Your task to perform on an android device: Open Youtube and go to "Your channel" Image 0: 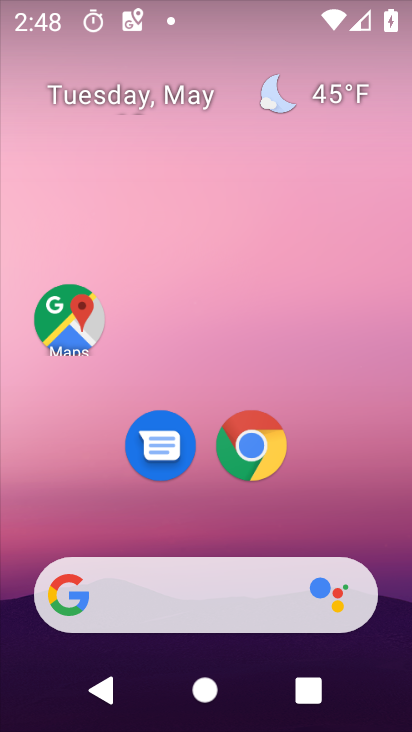
Step 0: drag from (194, 458) to (377, 0)
Your task to perform on an android device: Open Youtube and go to "Your channel" Image 1: 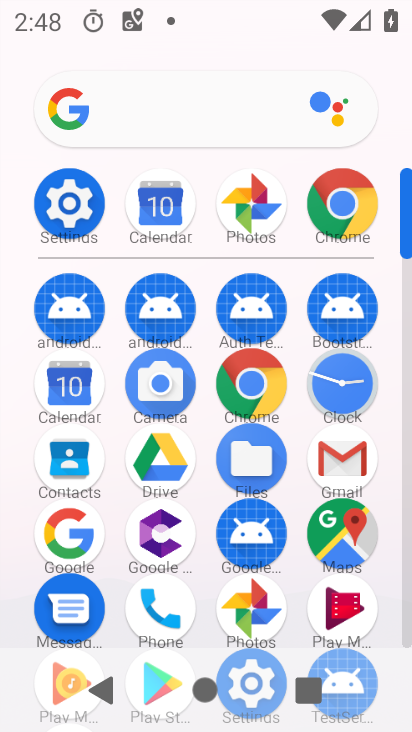
Step 1: drag from (223, 629) to (382, 72)
Your task to perform on an android device: Open Youtube and go to "Your channel" Image 2: 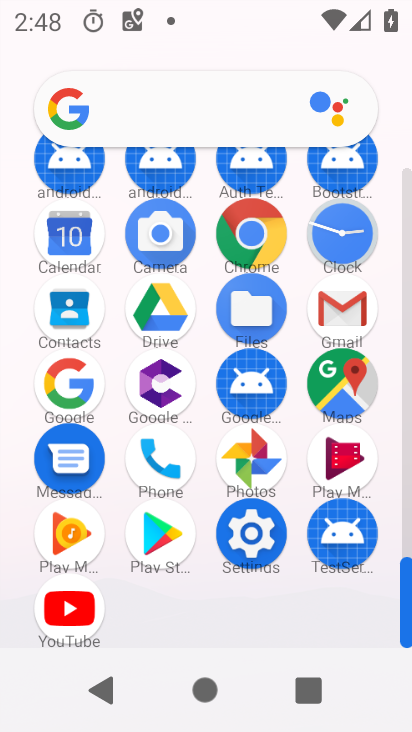
Step 2: click (59, 605)
Your task to perform on an android device: Open Youtube and go to "Your channel" Image 3: 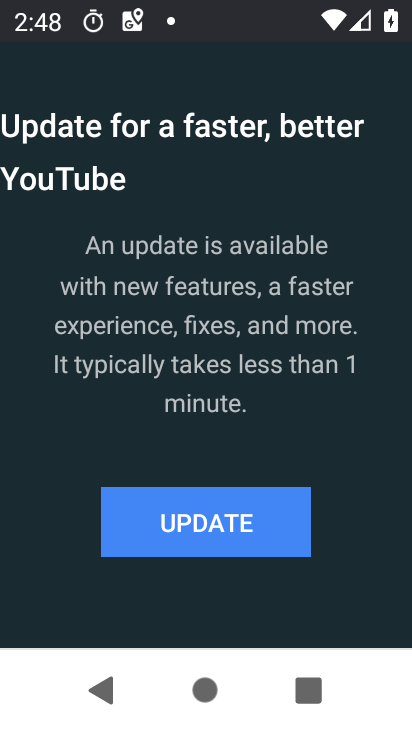
Step 3: click (199, 523)
Your task to perform on an android device: Open Youtube and go to "Your channel" Image 4: 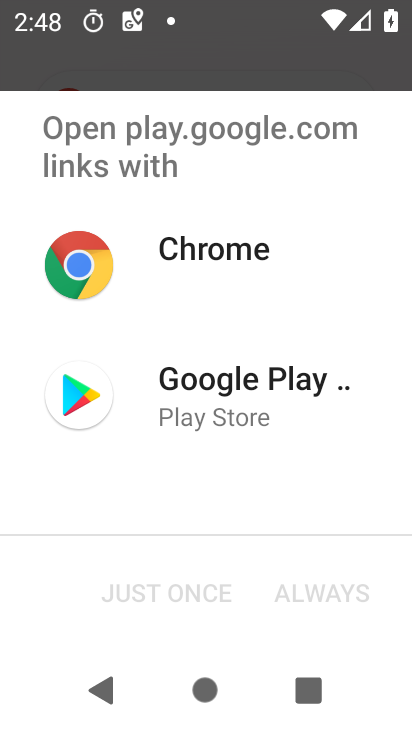
Step 4: click (198, 393)
Your task to perform on an android device: Open Youtube and go to "Your channel" Image 5: 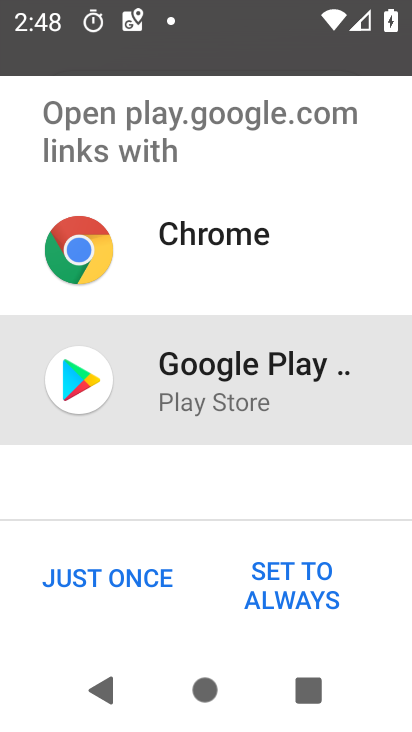
Step 5: click (139, 576)
Your task to perform on an android device: Open Youtube and go to "Your channel" Image 6: 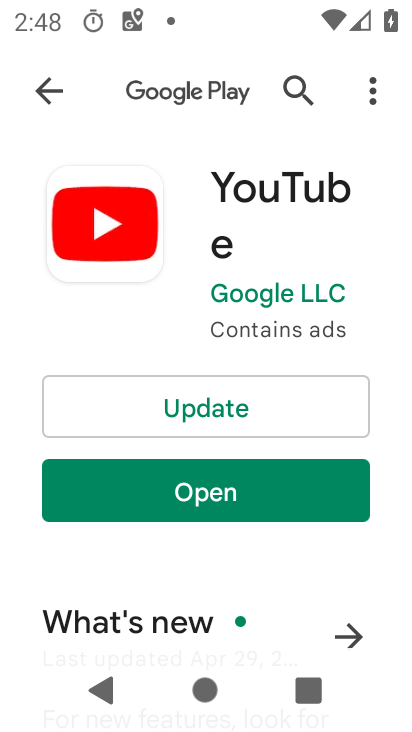
Step 6: click (208, 412)
Your task to perform on an android device: Open Youtube and go to "Your channel" Image 7: 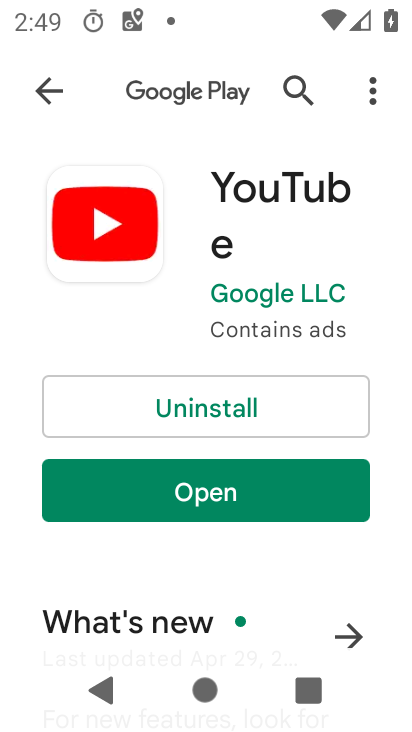
Step 7: click (188, 488)
Your task to perform on an android device: Open Youtube and go to "Your channel" Image 8: 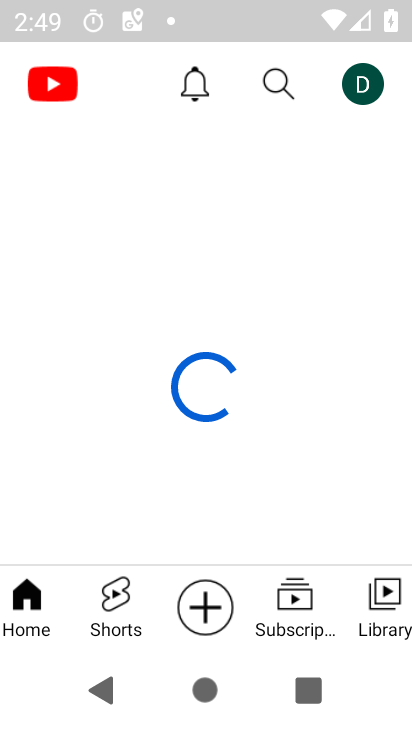
Step 8: click (357, 609)
Your task to perform on an android device: Open Youtube and go to "Your channel" Image 9: 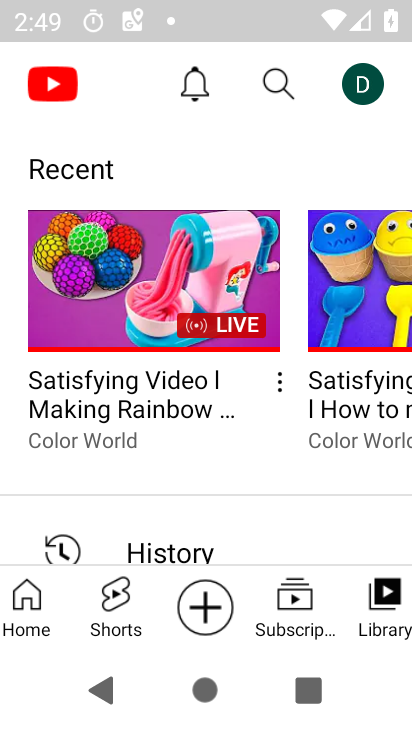
Step 9: click (360, 80)
Your task to perform on an android device: Open Youtube and go to "Your channel" Image 10: 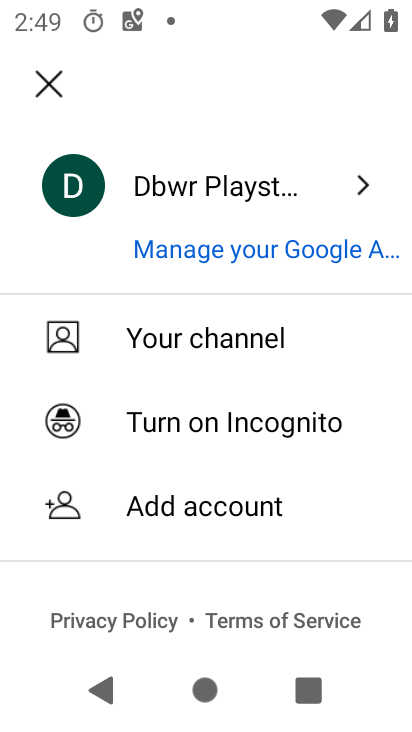
Step 10: click (212, 349)
Your task to perform on an android device: Open Youtube and go to "Your channel" Image 11: 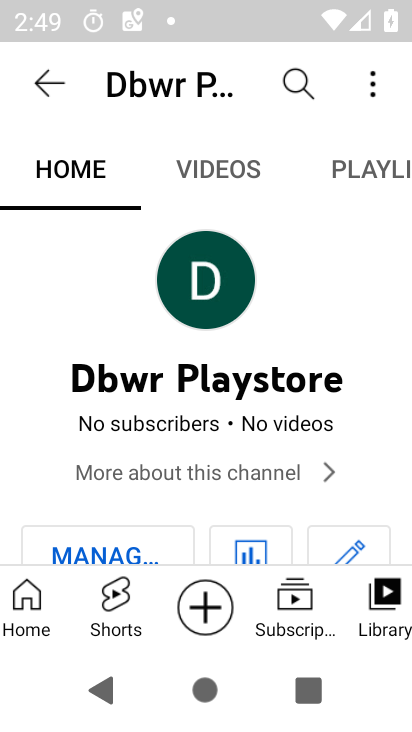
Step 11: task complete